Your task to perform on an android device: Search for Italian restaurants on Maps Image 0: 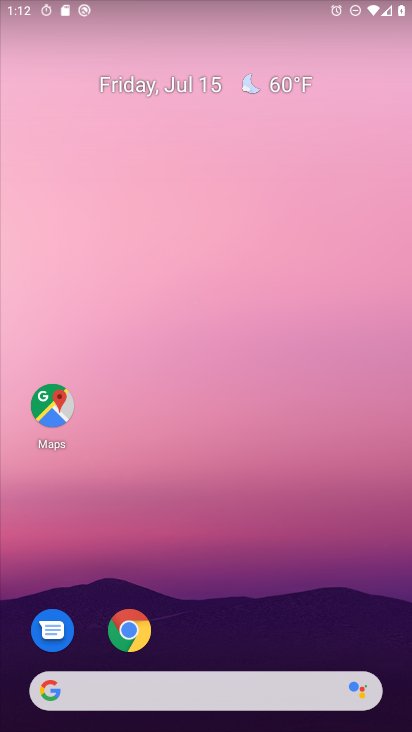
Step 0: drag from (193, 641) to (163, 338)
Your task to perform on an android device: Search for Italian restaurants on Maps Image 1: 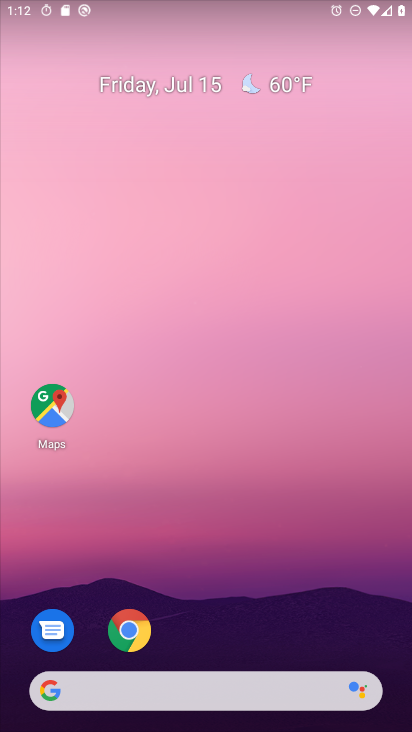
Step 1: click (46, 411)
Your task to perform on an android device: Search for Italian restaurants on Maps Image 2: 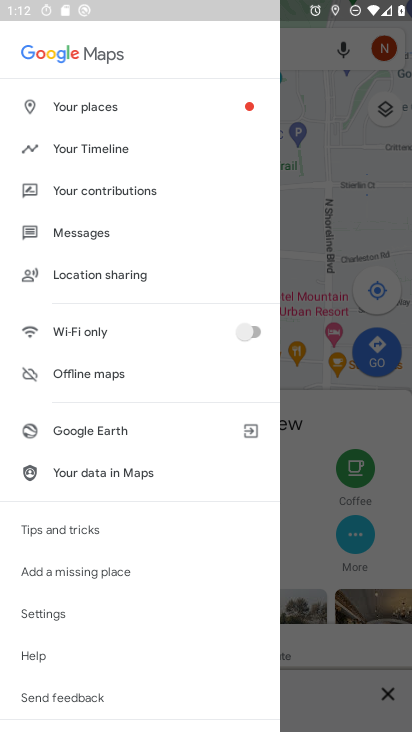
Step 2: press back button
Your task to perform on an android device: Search for Italian restaurants on Maps Image 3: 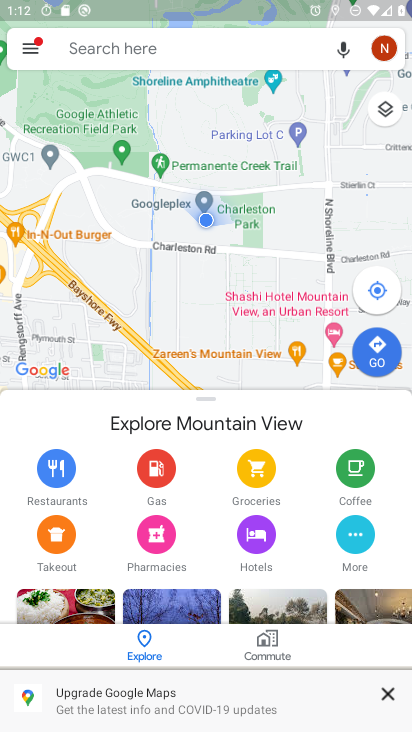
Step 3: click (120, 42)
Your task to perform on an android device: Search for Italian restaurants on Maps Image 4: 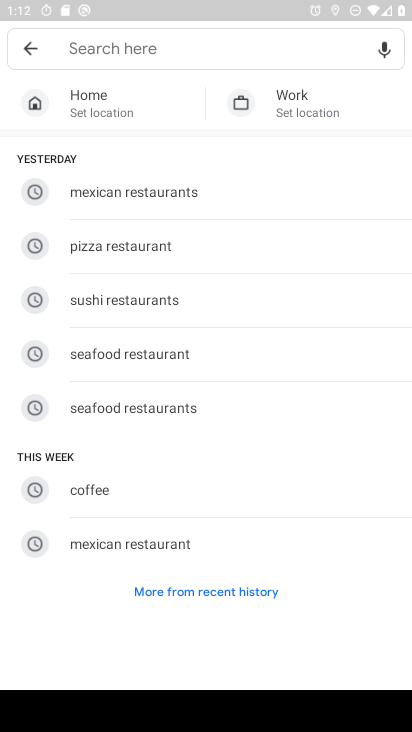
Step 4: type "italian restaurants"
Your task to perform on an android device: Search for Italian restaurants on Maps Image 5: 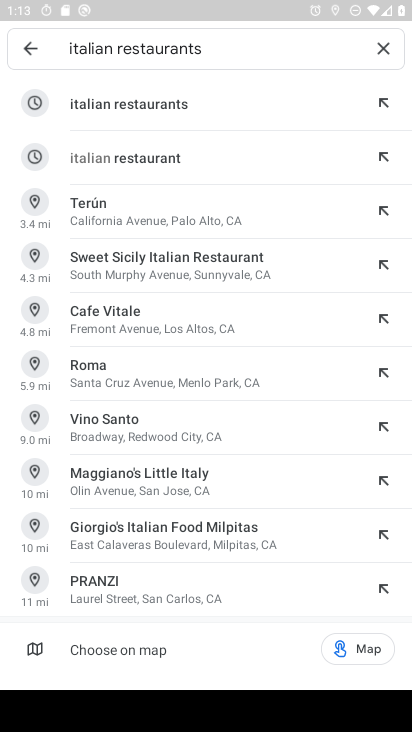
Step 5: click (120, 108)
Your task to perform on an android device: Search for Italian restaurants on Maps Image 6: 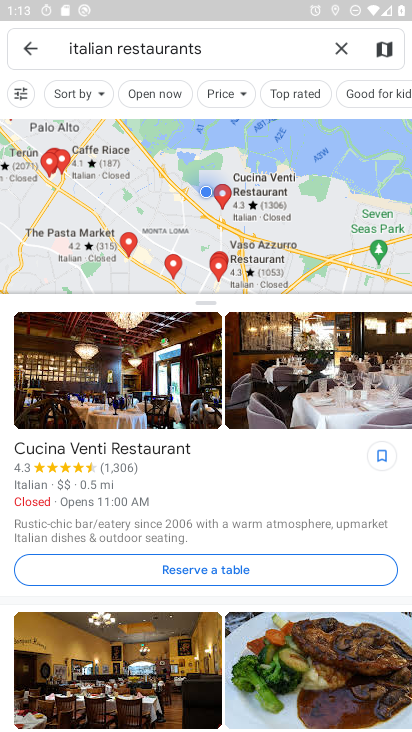
Step 6: task complete